Your task to perform on an android device: clear history in the chrome app Image 0: 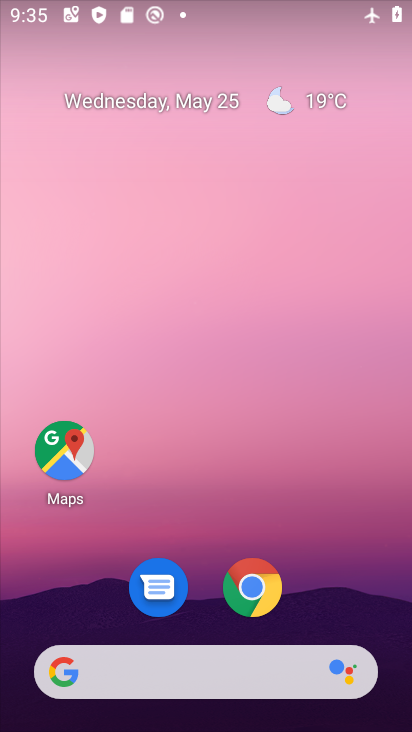
Step 0: click (251, 588)
Your task to perform on an android device: clear history in the chrome app Image 1: 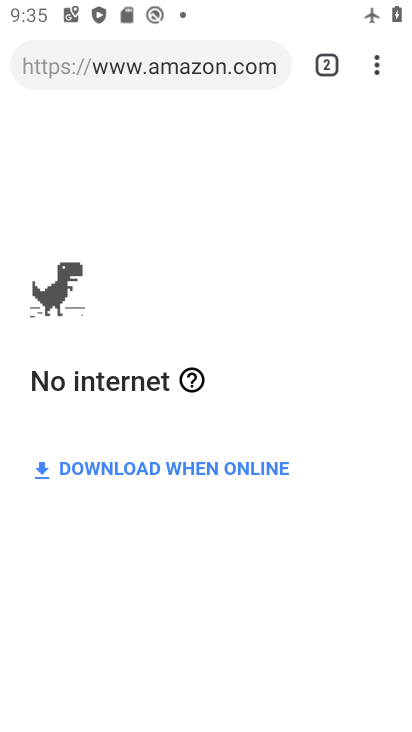
Step 1: click (378, 72)
Your task to perform on an android device: clear history in the chrome app Image 2: 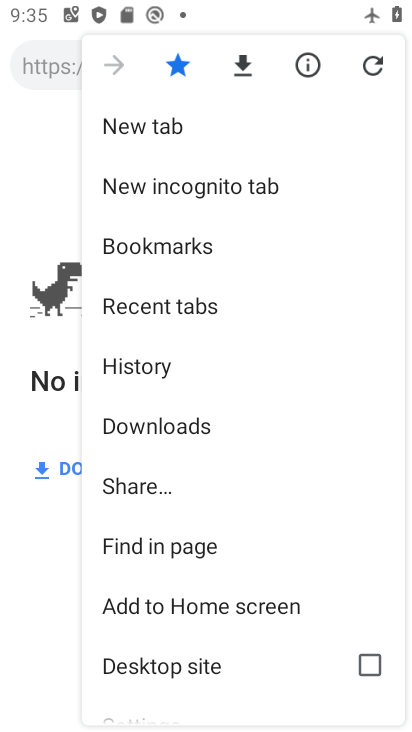
Step 2: click (134, 369)
Your task to perform on an android device: clear history in the chrome app Image 3: 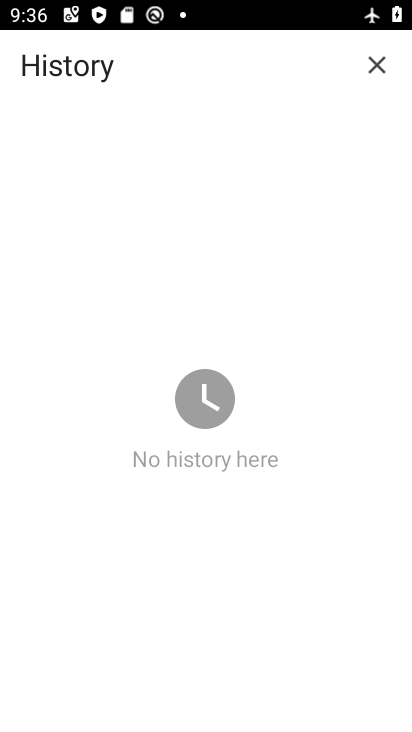
Step 3: task complete